Your task to perform on an android device: allow cookies in the chrome app Image 0: 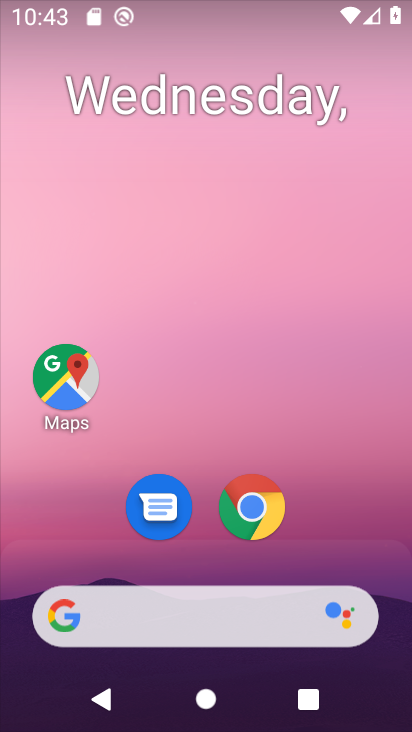
Step 0: drag from (338, 531) to (379, 95)
Your task to perform on an android device: allow cookies in the chrome app Image 1: 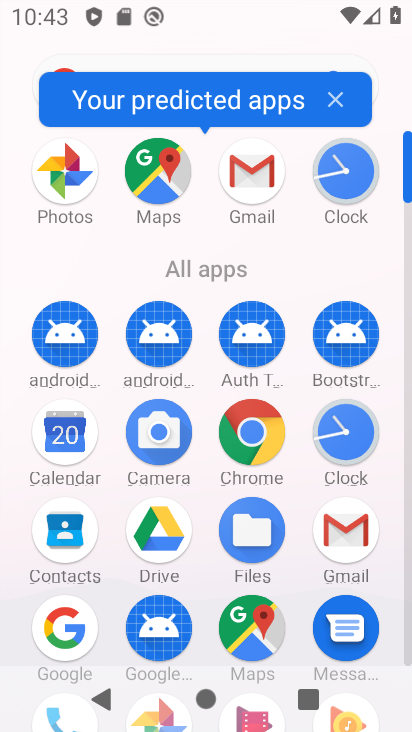
Step 1: click (251, 438)
Your task to perform on an android device: allow cookies in the chrome app Image 2: 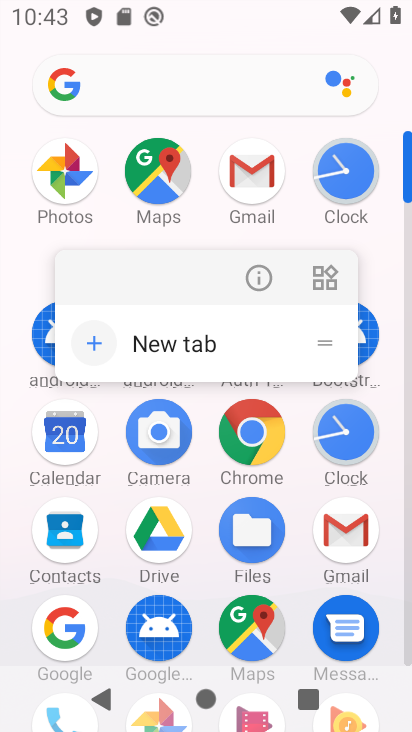
Step 2: click (240, 435)
Your task to perform on an android device: allow cookies in the chrome app Image 3: 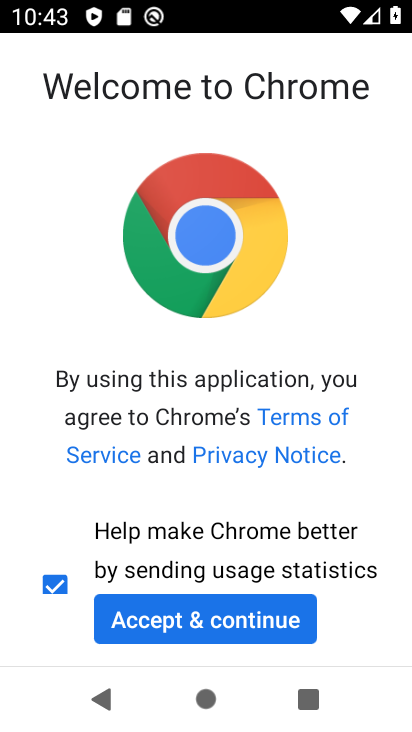
Step 3: click (260, 616)
Your task to perform on an android device: allow cookies in the chrome app Image 4: 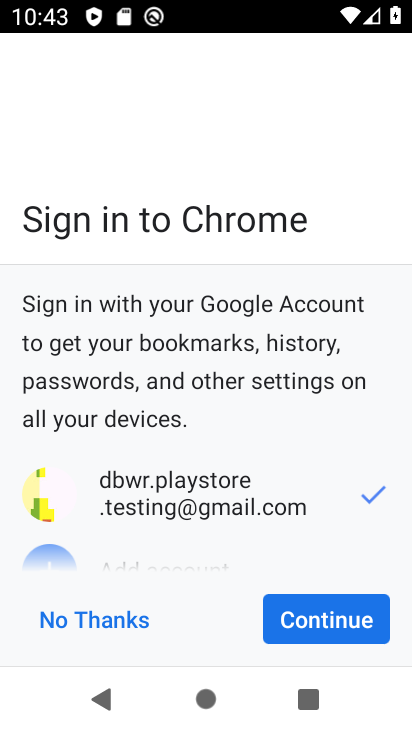
Step 4: click (354, 611)
Your task to perform on an android device: allow cookies in the chrome app Image 5: 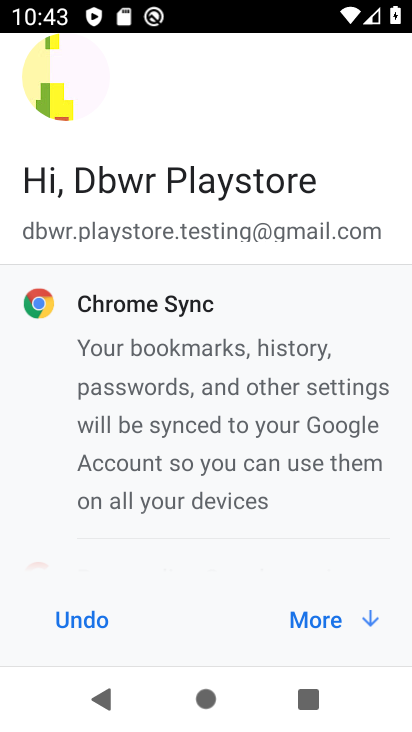
Step 5: click (322, 616)
Your task to perform on an android device: allow cookies in the chrome app Image 6: 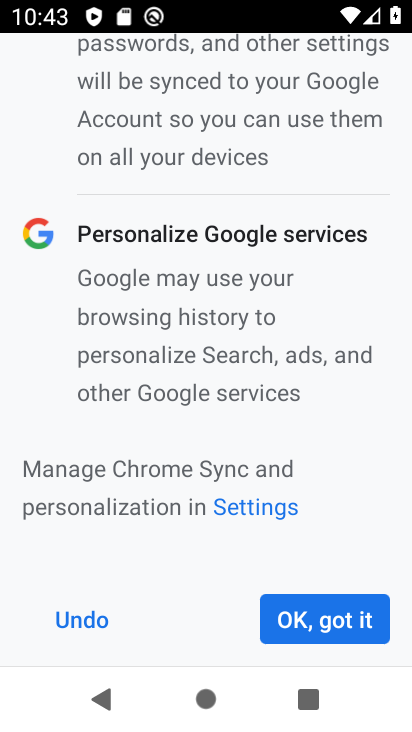
Step 6: click (344, 626)
Your task to perform on an android device: allow cookies in the chrome app Image 7: 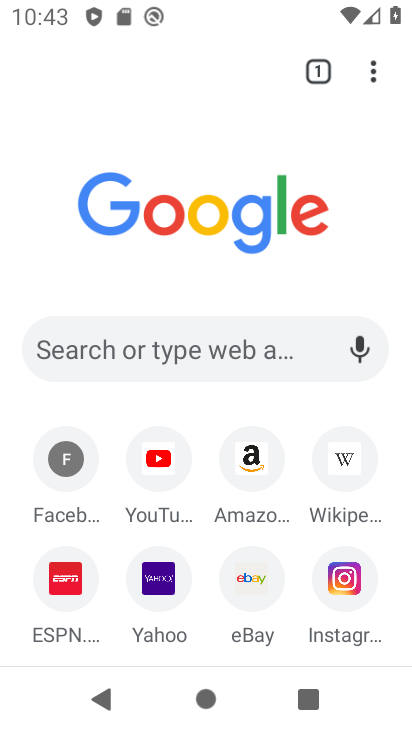
Step 7: click (374, 76)
Your task to perform on an android device: allow cookies in the chrome app Image 8: 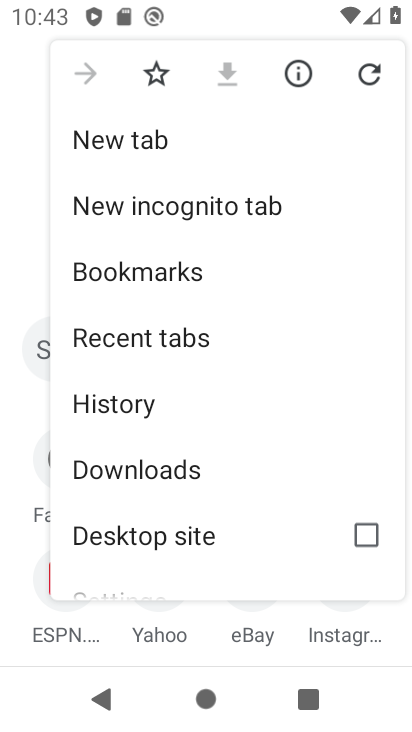
Step 8: drag from (313, 413) to (327, 202)
Your task to perform on an android device: allow cookies in the chrome app Image 9: 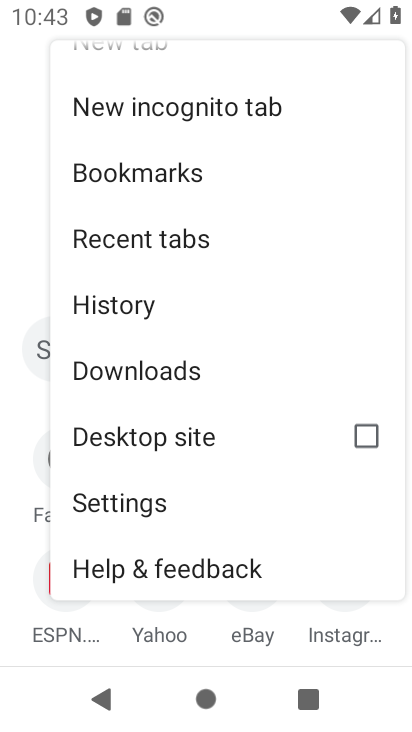
Step 9: click (134, 510)
Your task to perform on an android device: allow cookies in the chrome app Image 10: 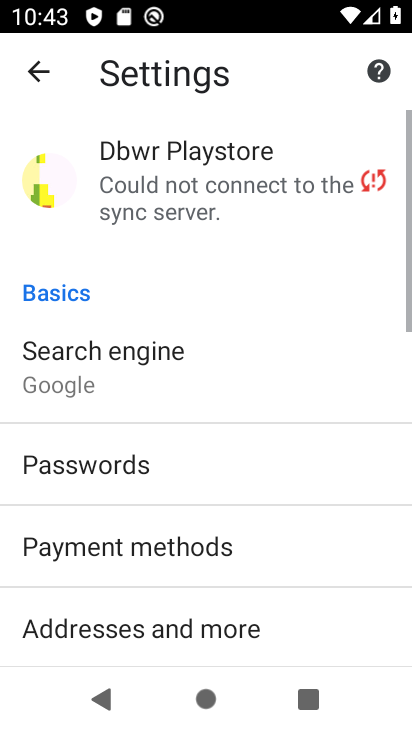
Step 10: drag from (285, 546) to (310, 418)
Your task to perform on an android device: allow cookies in the chrome app Image 11: 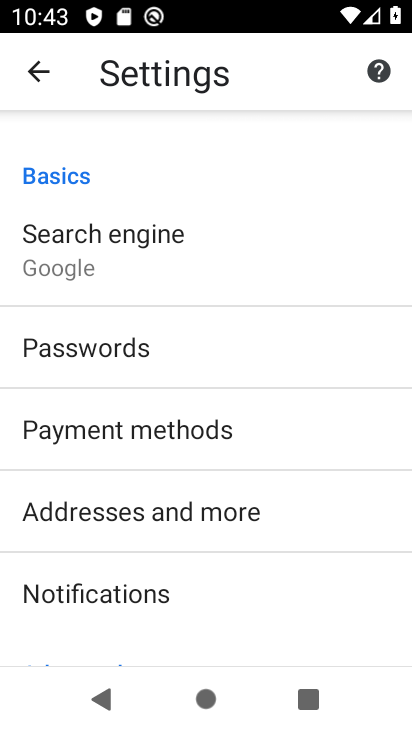
Step 11: drag from (326, 520) to (348, 398)
Your task to perform on an android device: allow cookies in the chrome app Image 12: 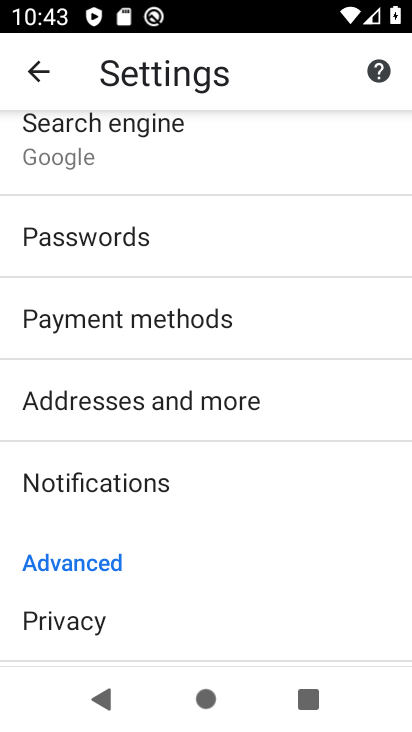
Step 12: drag from (347, 545) to (370, 408)
Your task to perform on an android device: allow cookies in the chrome app Image 13: 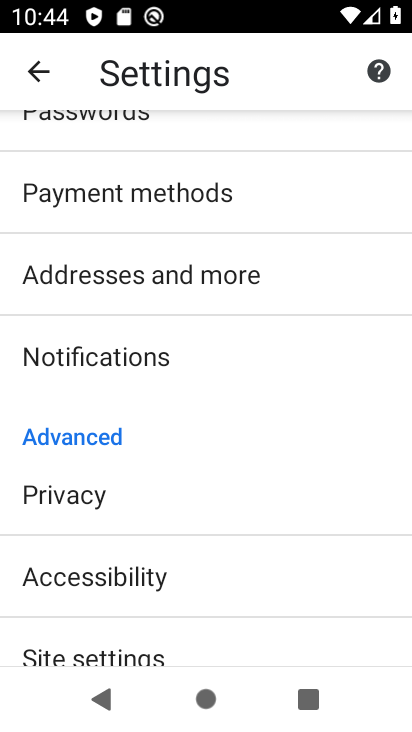
Step 13: drag from (343, 568) to (349, 429)
Your task to perform on an android device: allow cookies in the chrome app Image 14: 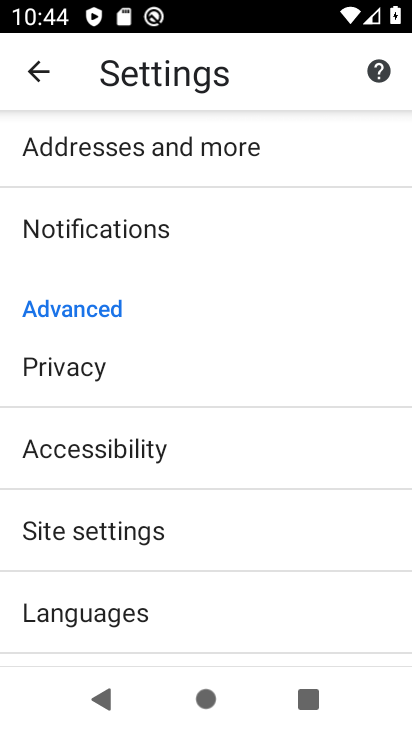
Step 14: drag from (343, 595) to (358, 457)
Your task to perform on an android device: allow cookies in the chrome app Image 15: 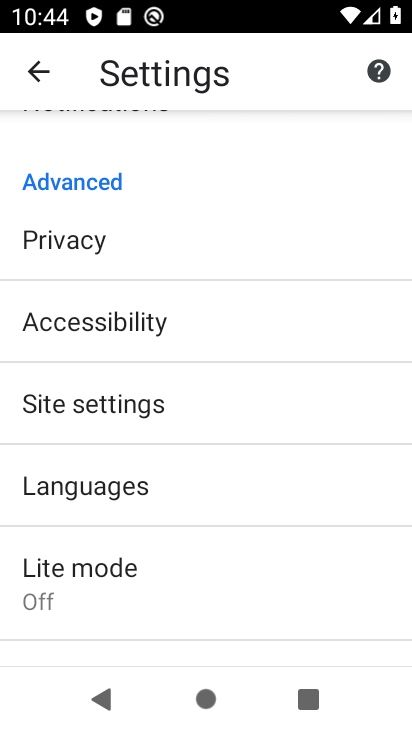
Step 15: drag from (353, 581) to (356, 459)
Your task to perform on an android device: allow cookies in the chrome app Image 16: 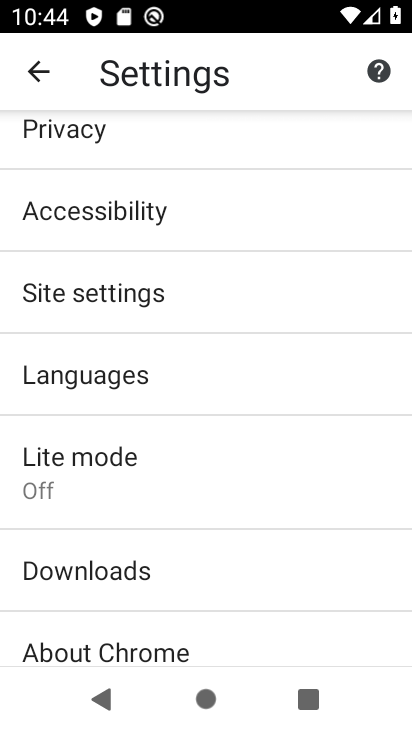
Step 16: click (316, 317)
Your task to perform on an android device: allow cookies in the chrome app Image 17: 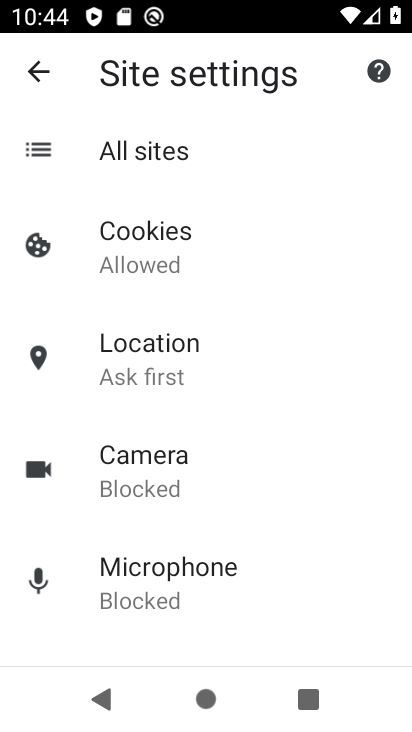
Step 17: click (170, 260)
Your task to perform on an android device: allow cookies in the chrome app Image 18: 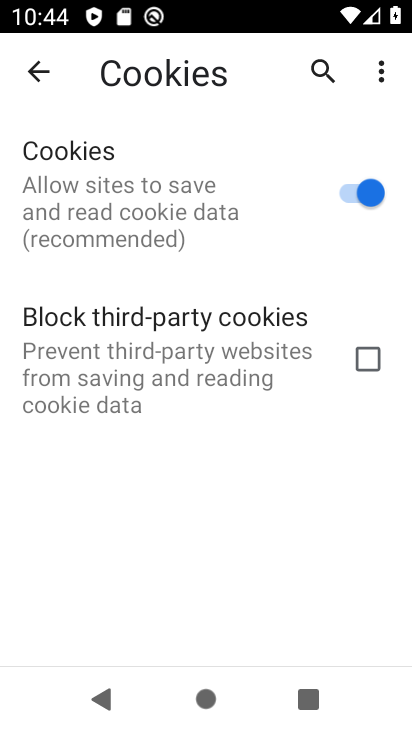
Step 18: task complete